Your task to perform on an android device: open app "WhatsApp Messenger" (install if not already installed) Image 0: 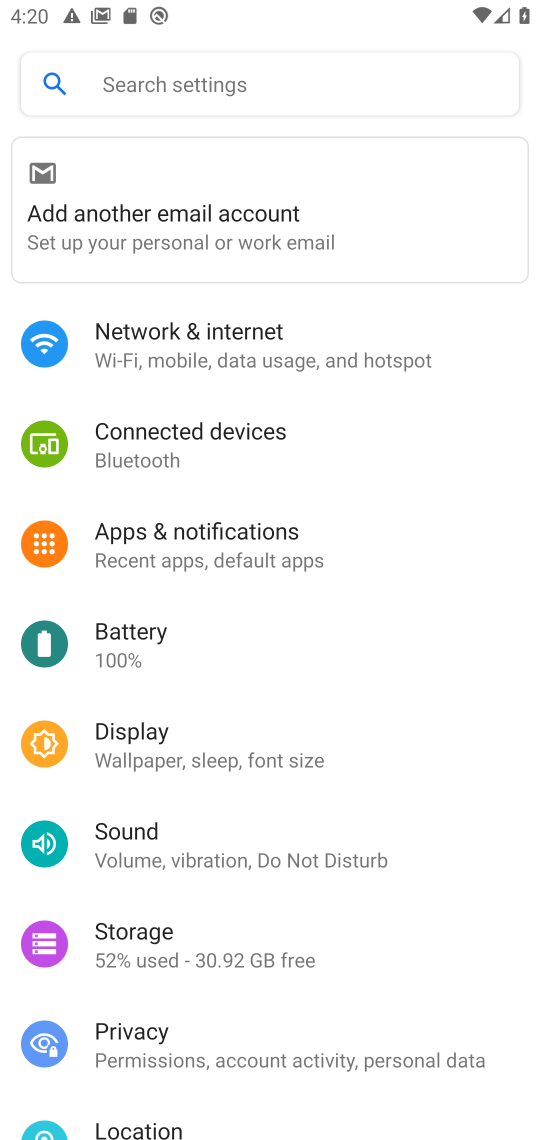
Step 0: press home button
Your task to perform on an android device: open app "WhatsApp Messenger" (install if not already installed) Image 1: 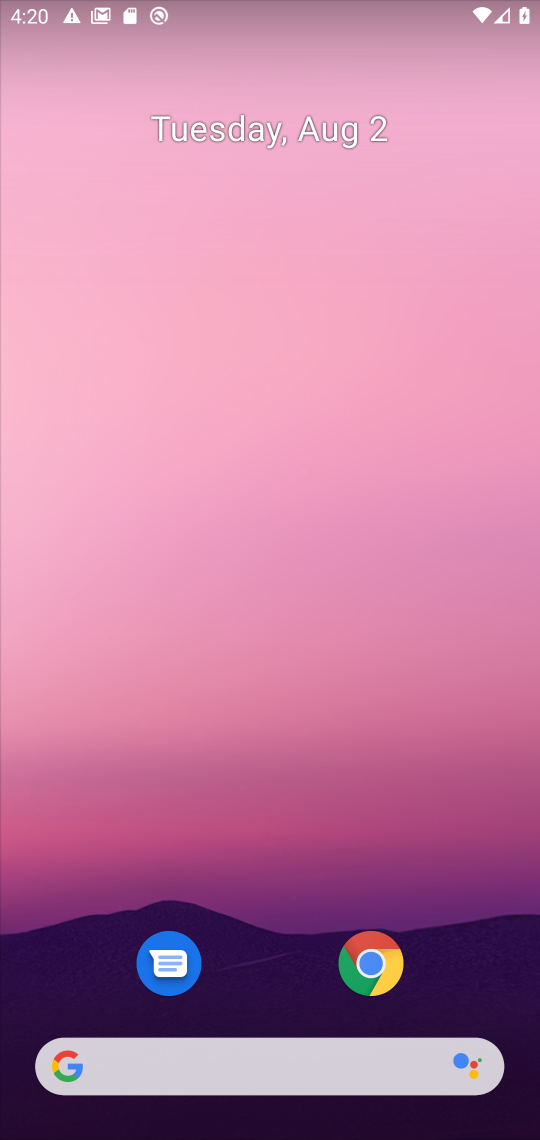
Step 1: drag from (319, 1032) to (278, 235)
Your task to perform on an android device: open app "WhatsApp Messenger" (install if not already installed) Image 2: 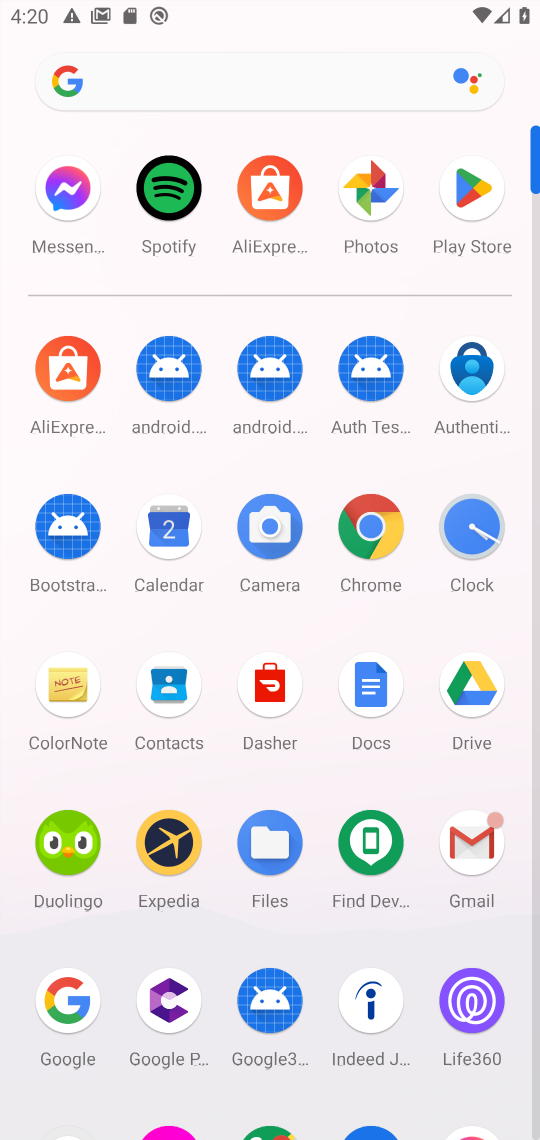
Step 2: click (469, 201)
Your task to perform on an android device: open app "WhatsApp Messenger" (install if not already installed) Image 3: 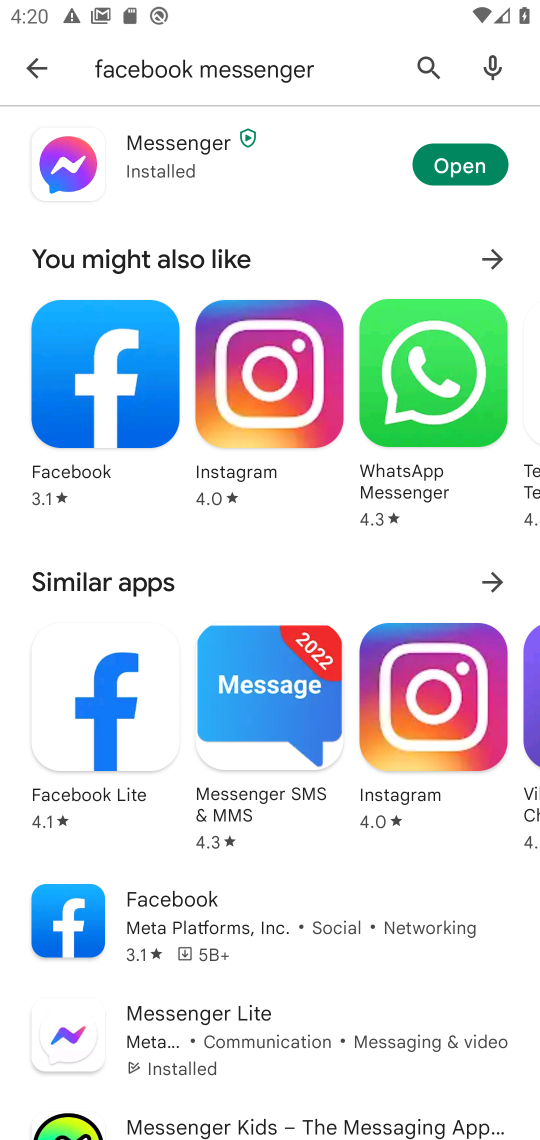
Step 3: click (425, 56)
Your task to perform on an android device: open app "WhatsApp Messenger" (install if not already installed) Image 4: 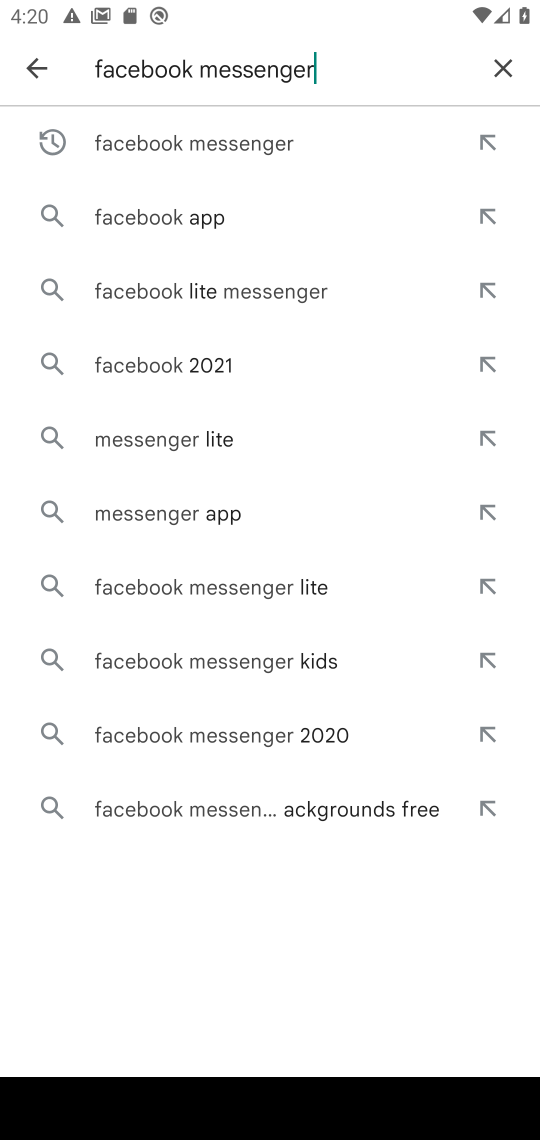
Step 4: click (498, 57)
Your task to perform on an android device: open app "WhatsApp Messenger" (install if not already installed) Image 5: 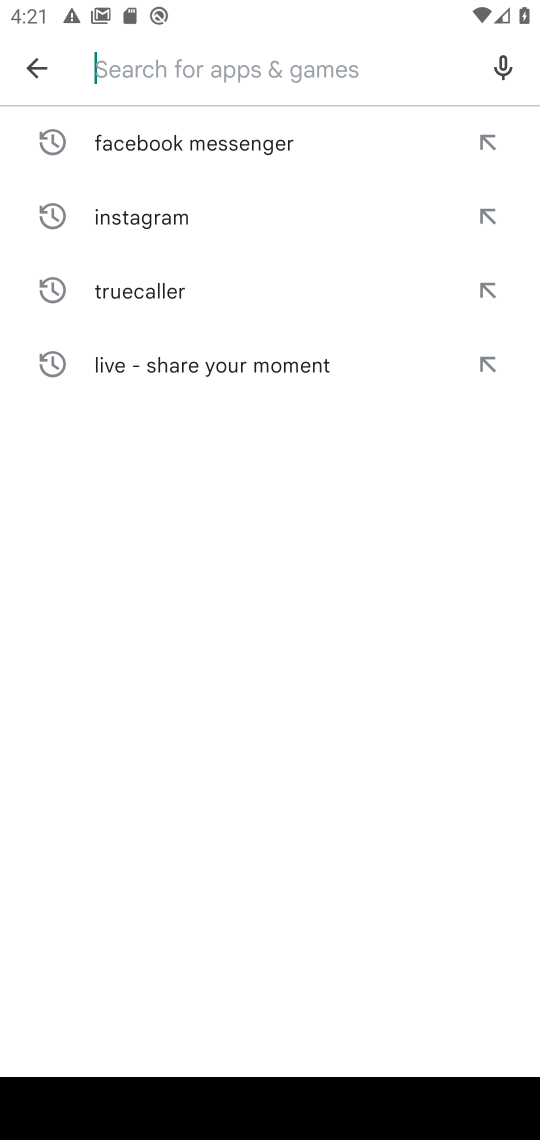
Step 5: type "WhatsApp Messenger"
Your task to perform on an android device: open app "WhatsApp Messenger" (install if not already installed) Image 6: 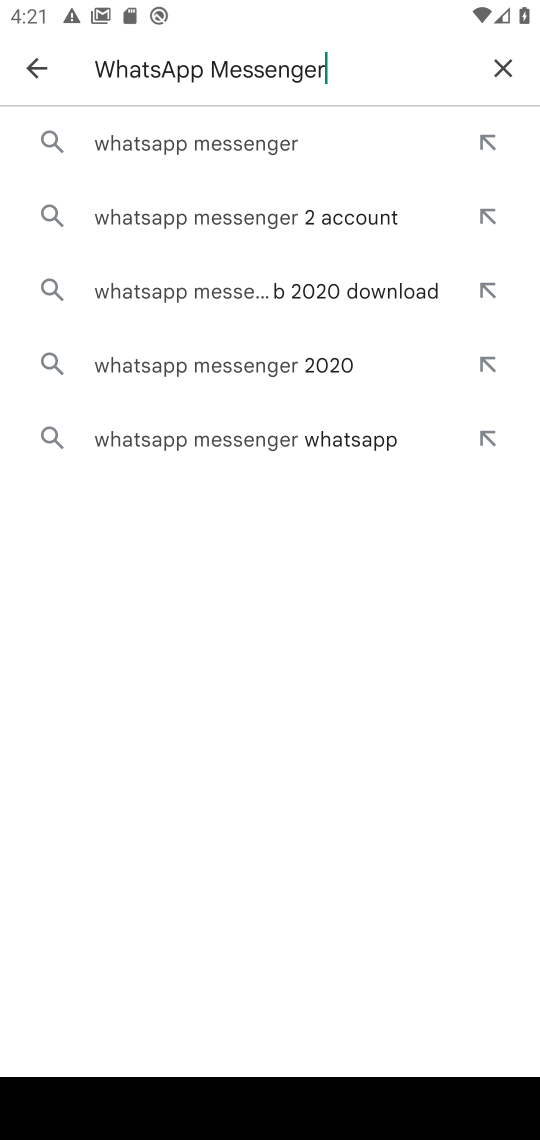
Step 6: click (242, 148)
Your task to perform on an android device: open app "WhatsApp Messenger" (install if not already installed) Image 7: 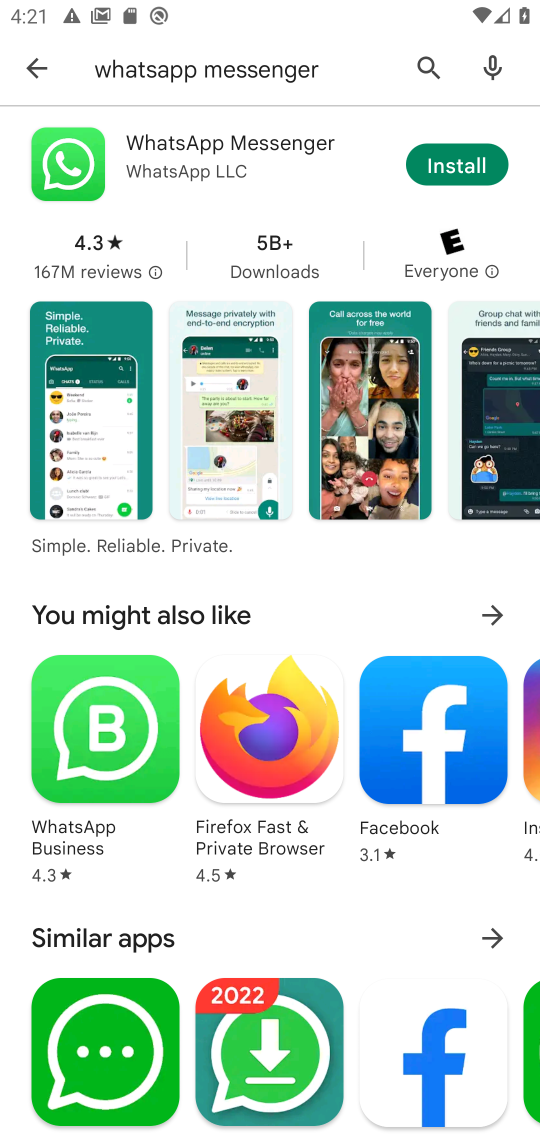
Step 7: click (471, 170)
Your task to perform on an android device: open app "WhatsApp Messenger" (install if not already installed) Image 8: 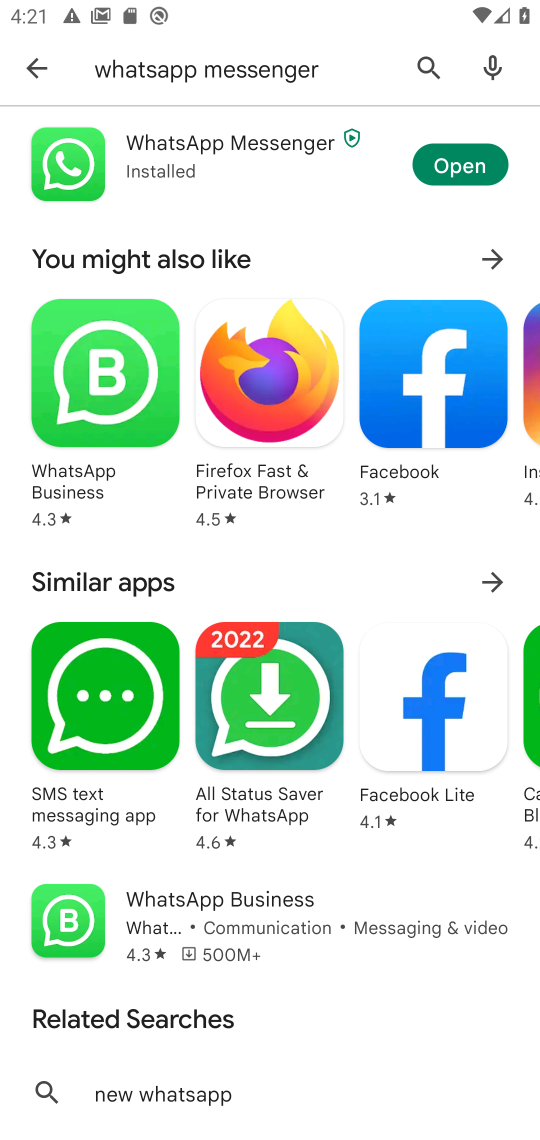
Step 8: click (476, 170)
Your task to perform on an android device: open app "WhatsApp Messenger" (install if not already installed) Image 9: 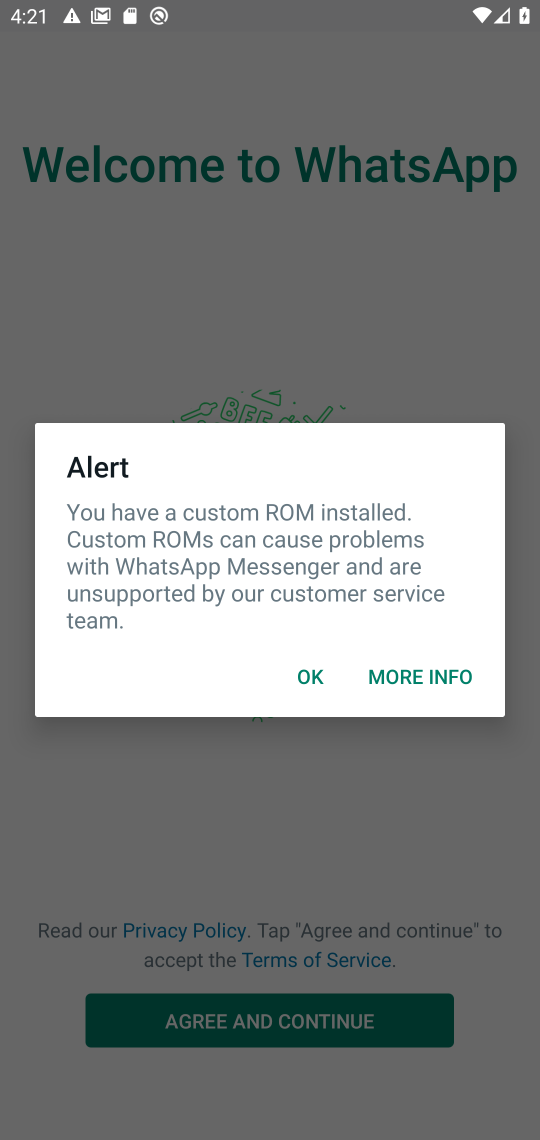
Step 9: task complete